Your task to perform on an android device: open app "Instagram" (install if not already installed) and go to login screen Image 0: 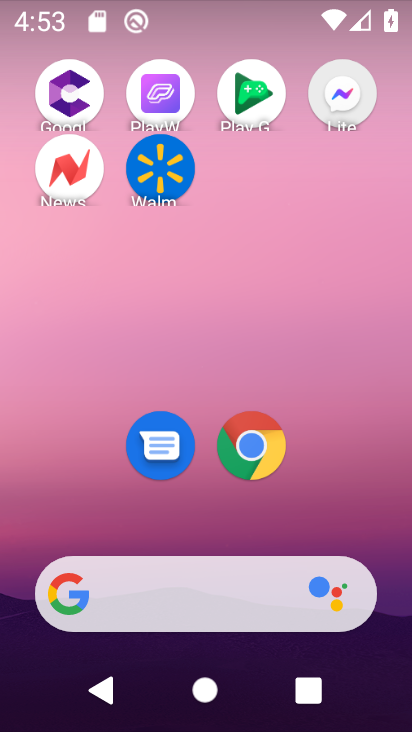
Step 0: press home button
Your task to perform on an android device: open app "Instagram" (install if not already installed) and go to login screen Image 1: 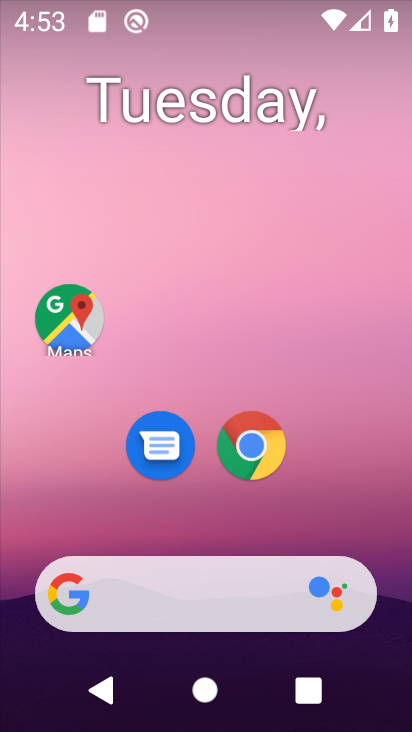
Step 1: drag from (151, 605) to (303, 81)
Your task to perform on an android device: open app "Instagram" (install if not already installed) and go to login screen Image 2: 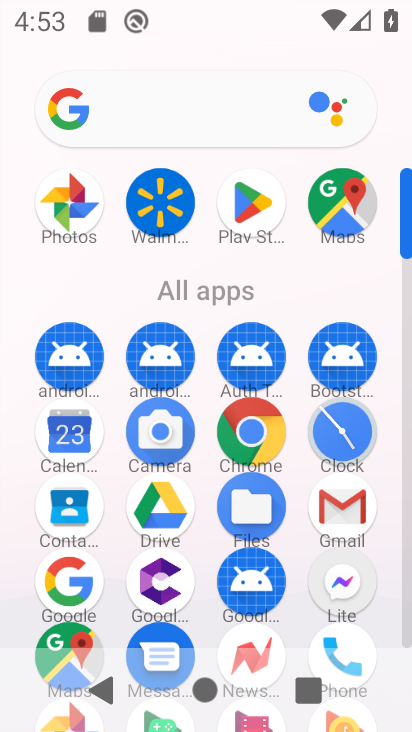
Step 2: click (254, 208)
Your task to perform on an android device: open app "Instagram" (install if not already installed) and go to login screen Image 3: 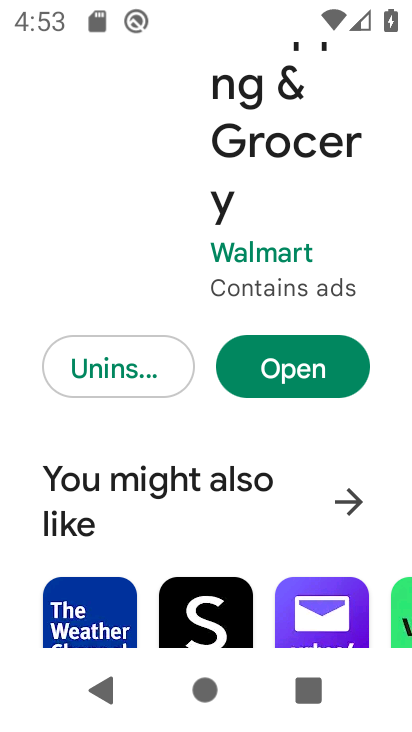
Step 3: press back button
Your task to perform on an android device: open app "Instagram" (install if not already installed) and go to login screen Image 4: 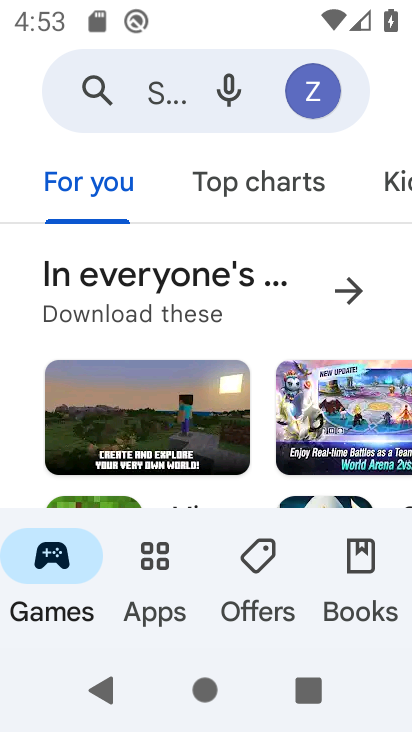
Step 4: click (168, 94)
Your task to perform on an android device: open app "Instagram" (install if not already installed) and go to login screen Image 5: 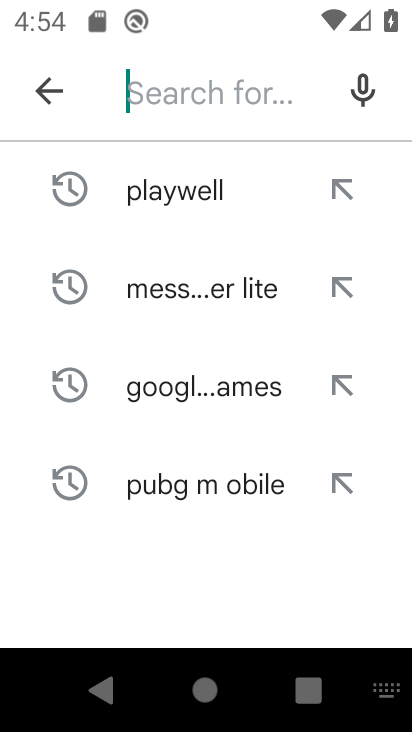
Step 5: type "Instagram"
Your task to perform on an android device: open app "Instagram" (install if not already installed) and go to login screen Image 6: 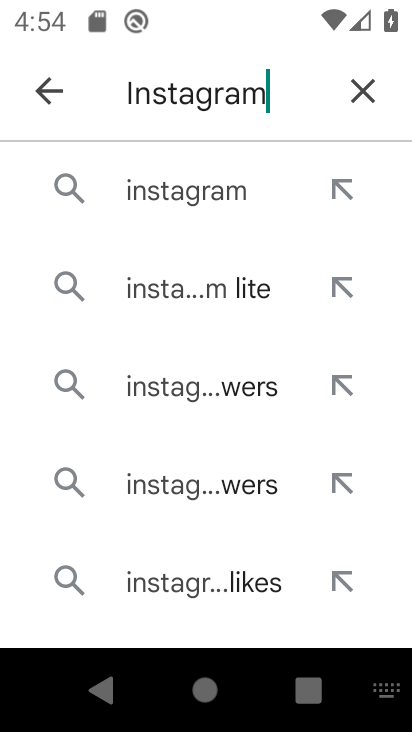
Step 6: click (206, 189)
Your task to perform on an android device: open app "Instagram" (install if not already installed) and go to login screen Image 7: 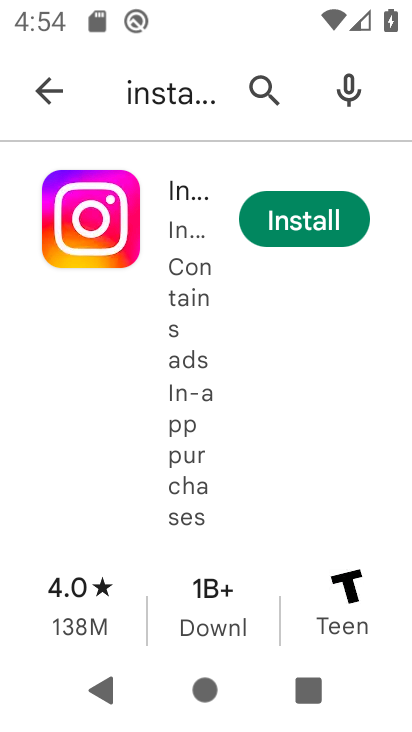
Step 7: click (269, 229)
Your task to perform on an android device: open app "Instagram" (install if not already installed) and go to login screen Image 8: 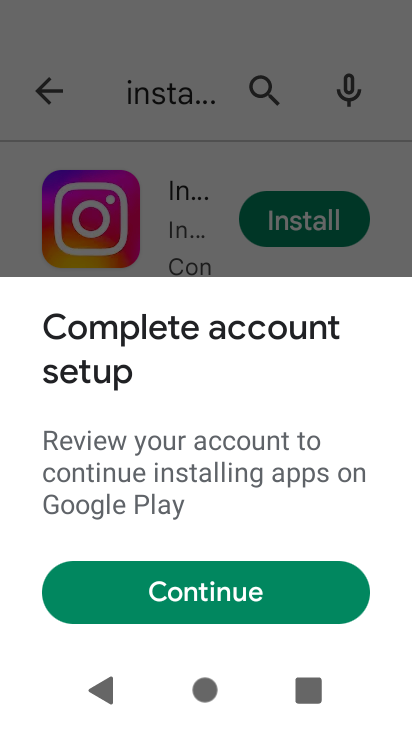
Step 8: click (187, 594)
Your task to perform on an android device: open app "Instagram" (install if not already installed) and go to login screen Image 9: 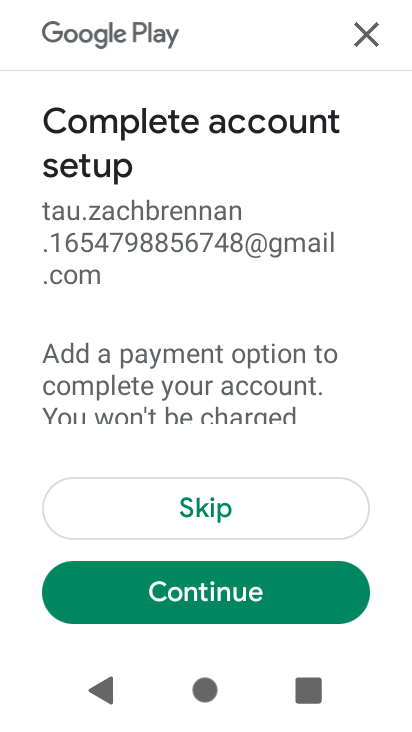
Step 9: click (219, 506)
Your task to perform on an android device: open app "Instagram" (install if not already installed) and go to login screen Image 10: 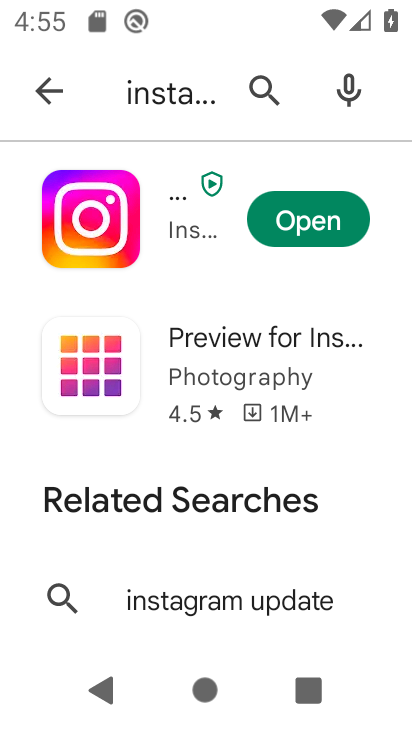
Step 10: click (311, 220)
Your task to perform on an android device: open app "Instagram" (install if not already installed) and go to login screen Image 11: 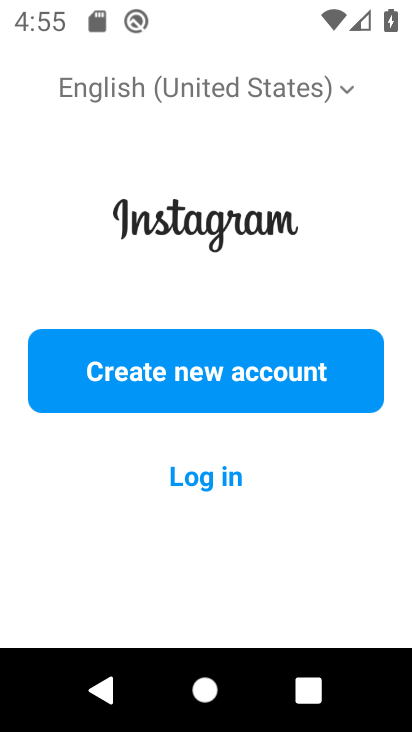
Step 11: click (225, 477)
Your task to perform on an android device: open app "Instagram" (install if not already installed) and go to login screen Image 12: 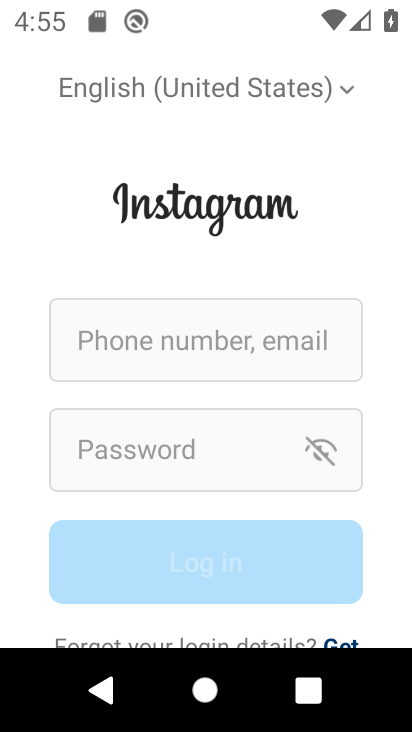
Step 12: task complete